Your task to perform on an android device: create a new album in the google photos Image 0: 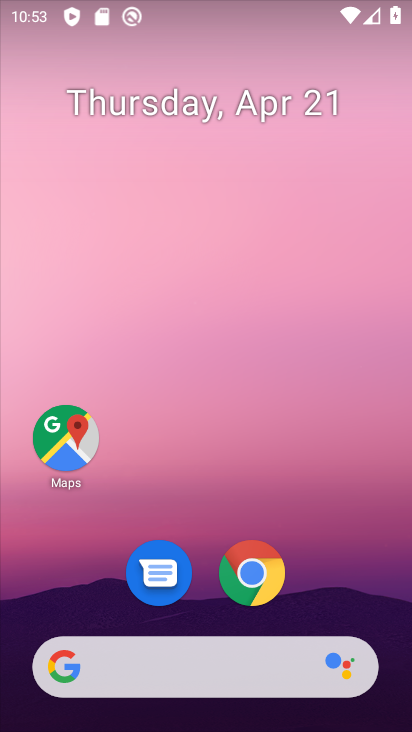
Step 0: drag from (295, 599) to (273, 1)
Your task to perform on an android device: create a new album in the google photos Image 1: 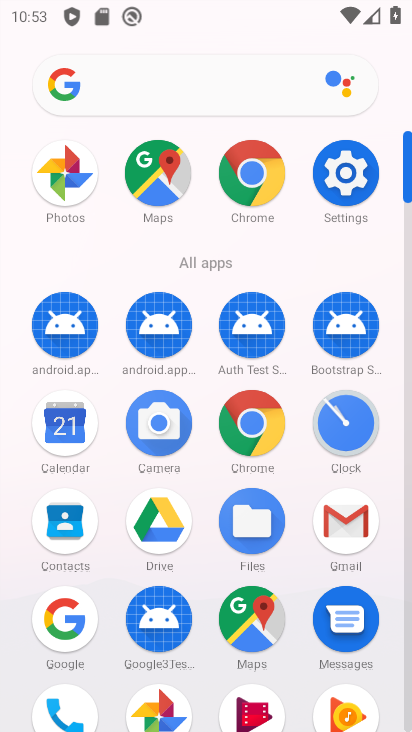
Step 1: click (166, 709)
Your task to perform on an android device: create a new album in the google photos Image 2: 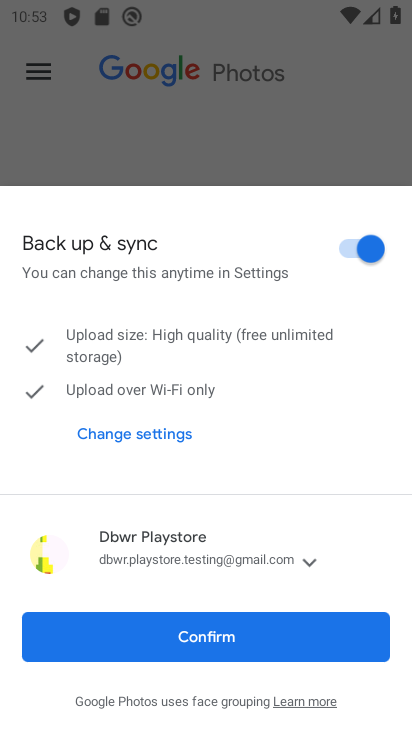
Step 2: click (277, 627)
Your task to perform on an android device: create a new album in the google photos Image 3: 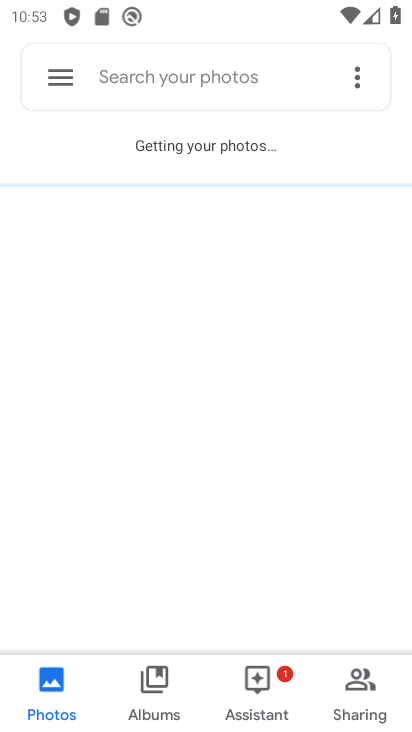
Step 3: click (360, 69)
Your task to perform on an android device: create a new album in the google photos Image 4: 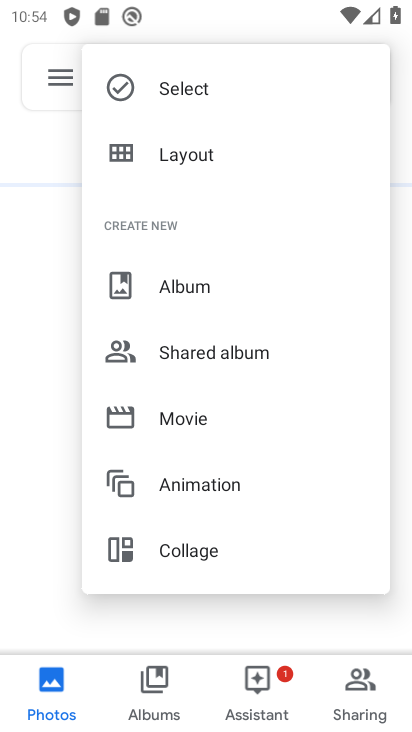
Step 4: click (175, 285)
Your task to perform on an android device: create a new album in the google photos Image 5: 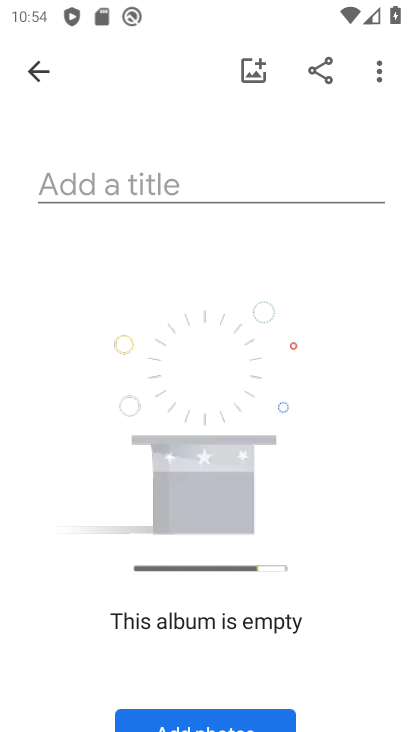
Step 5: click (150, 178)
Your task to perform on an android device: create a new album in the google photos Image 6: 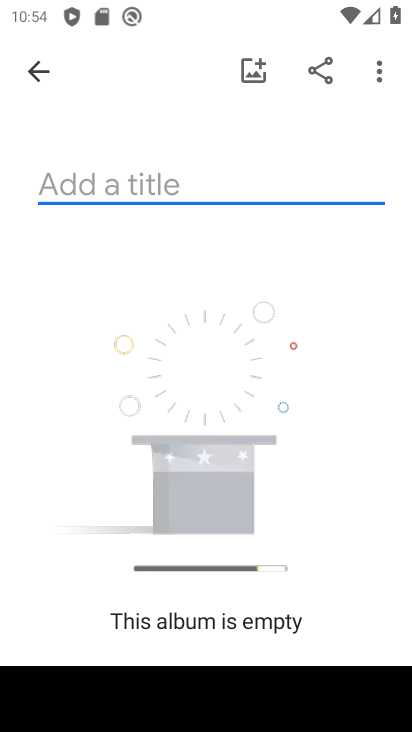
Step 6: type "rtrcv"
Your task to perform on an android device: create a new album in the google photos Image 7: 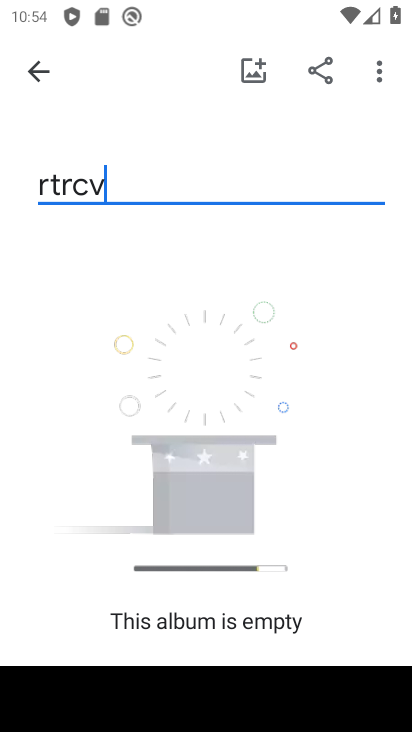
Step 7: click (252, 70)
Your task to perform on an android device: create a new album in the google photos Image 8: 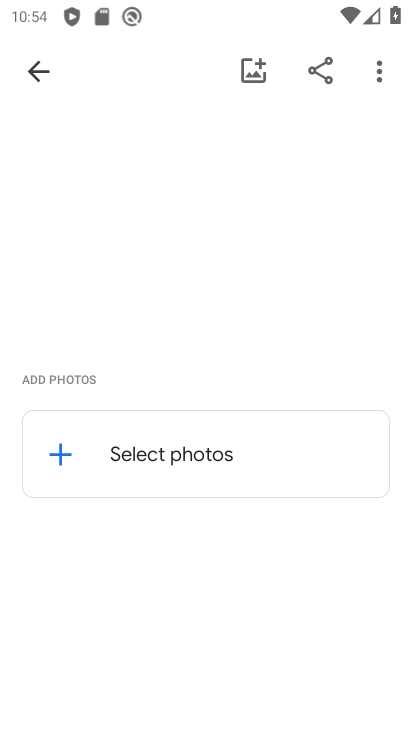
Step 8: click (194, 455)
Your task to perform on an android device: create a new album in the google photos Image 9: 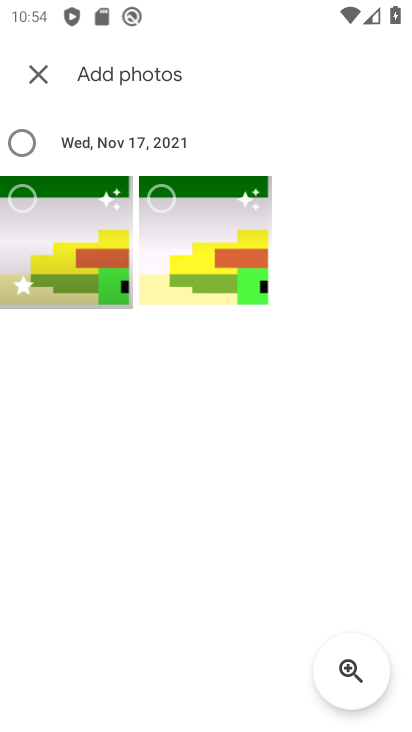
Step 9: click (28, 197)
Your task to perform on an android device: create a new album in the google photos Image 10: 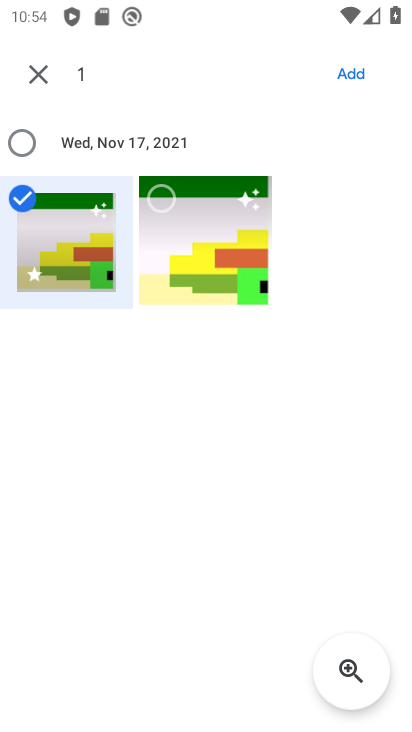
Step 10: click (163, 206)
Your task to perform on an android device: create a new album in the google photos Image 11: 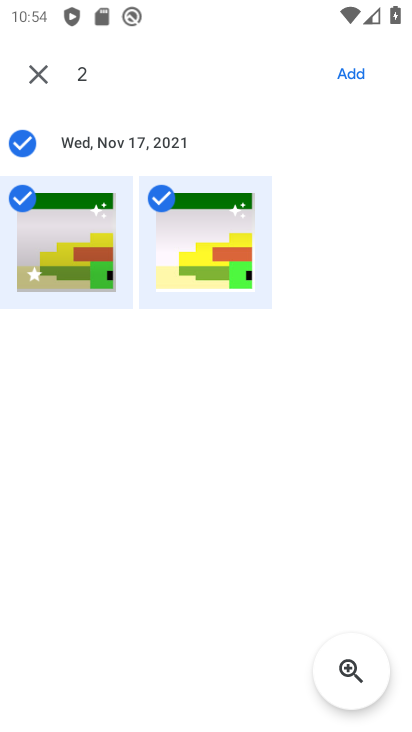
Step 11: click (363, 70)
Your task to perform on an android device: create a new album in the google photos Image 12: 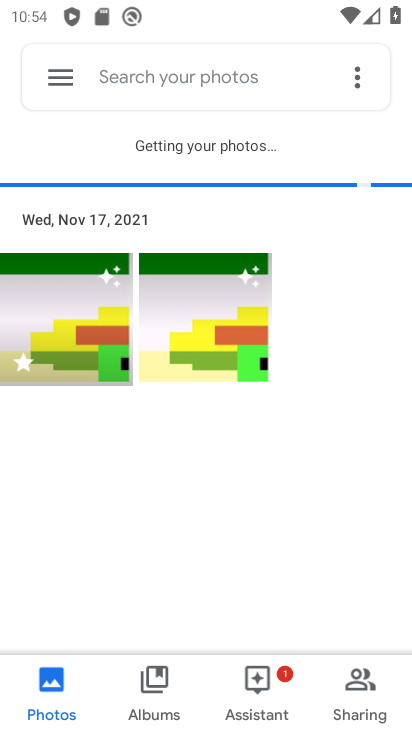
Step 12: task complete